Your task to perform on an android device: open app "TextNow: Call + Text Unlimited" (install if not already installed) and go to login screen Image 0: 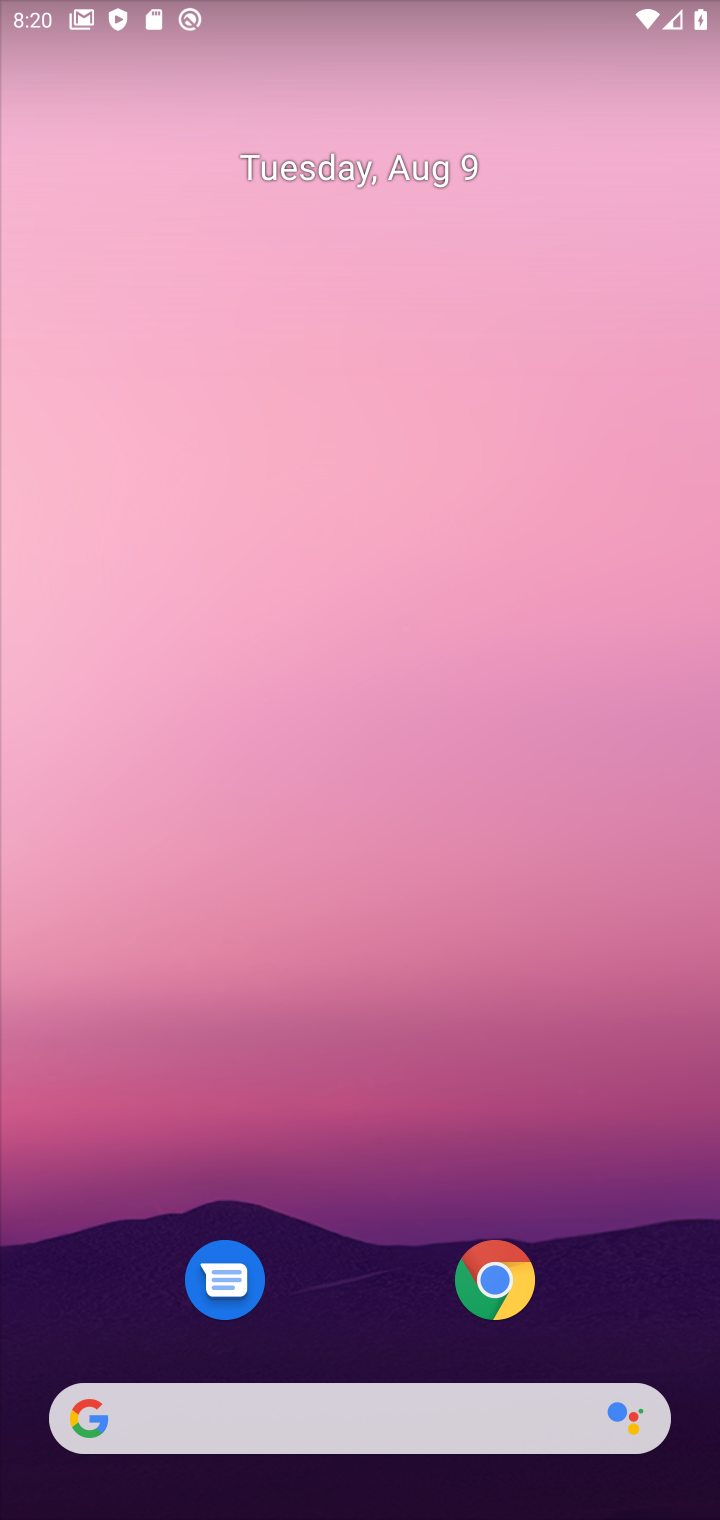
Step 0: drag from (381, 805) to (413, 428)
Your task to perform on an android device: open app "TextNow: Call + Text Unlimited" (install if not already installed) and go to login screen Image 1: 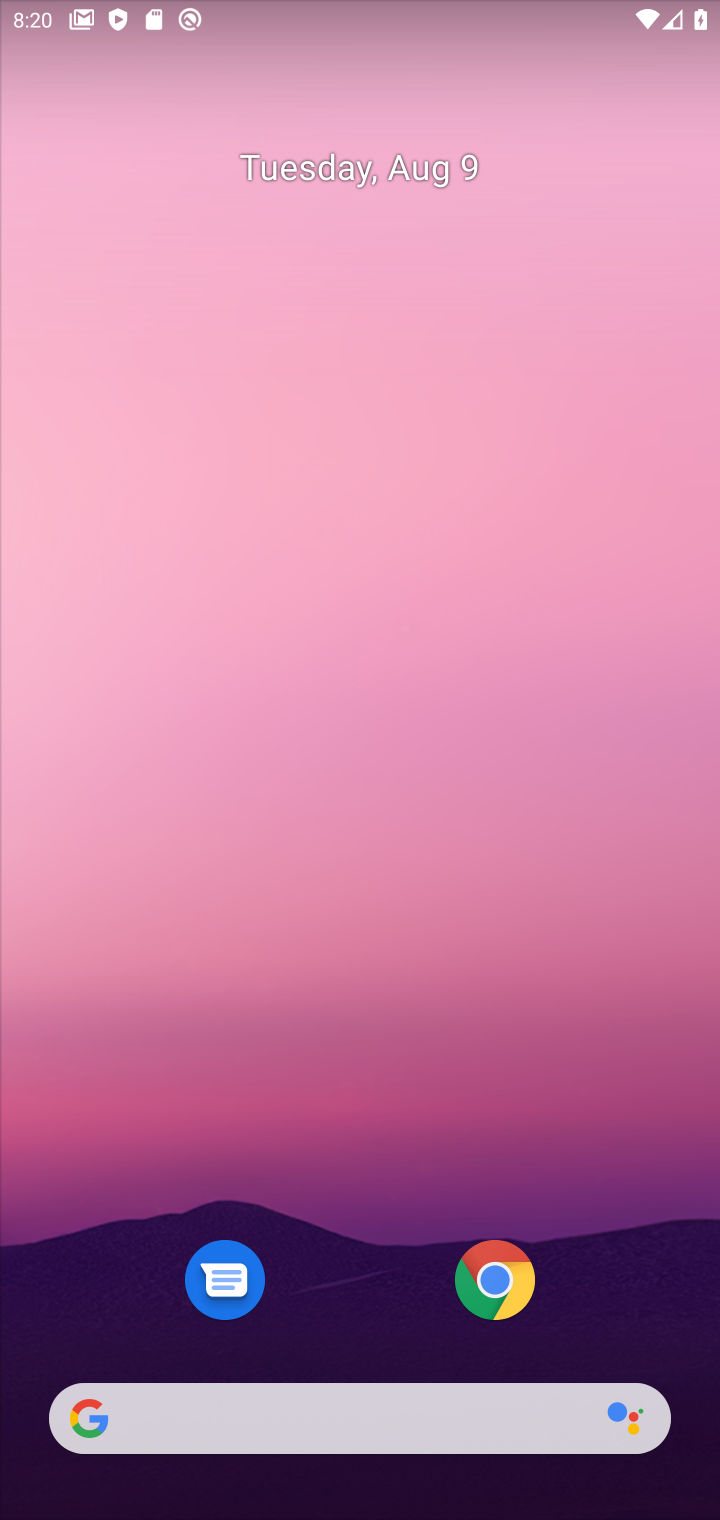
Step 1: drag from (409, 1224) to (578, 244)
Your task to perform on an android device: open app "TextNow: Call + Text Unlimited" (install if not already installed) and go to login screen Image 2: 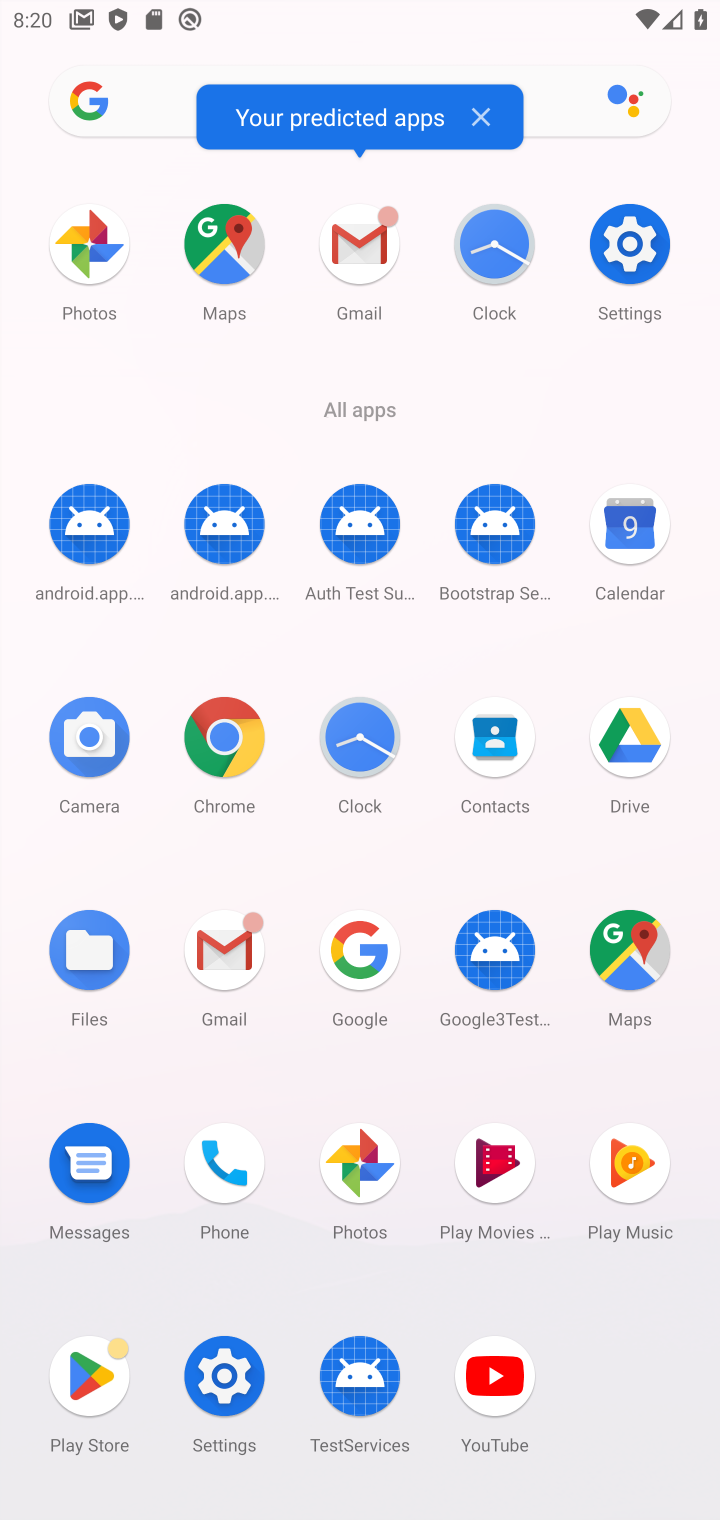
Step 2: click (82, 1383)
Your task to perform on an android device: open app "TextNow: Call + Text Unlimited" (install if not already installed) and go to login screen Image 3: 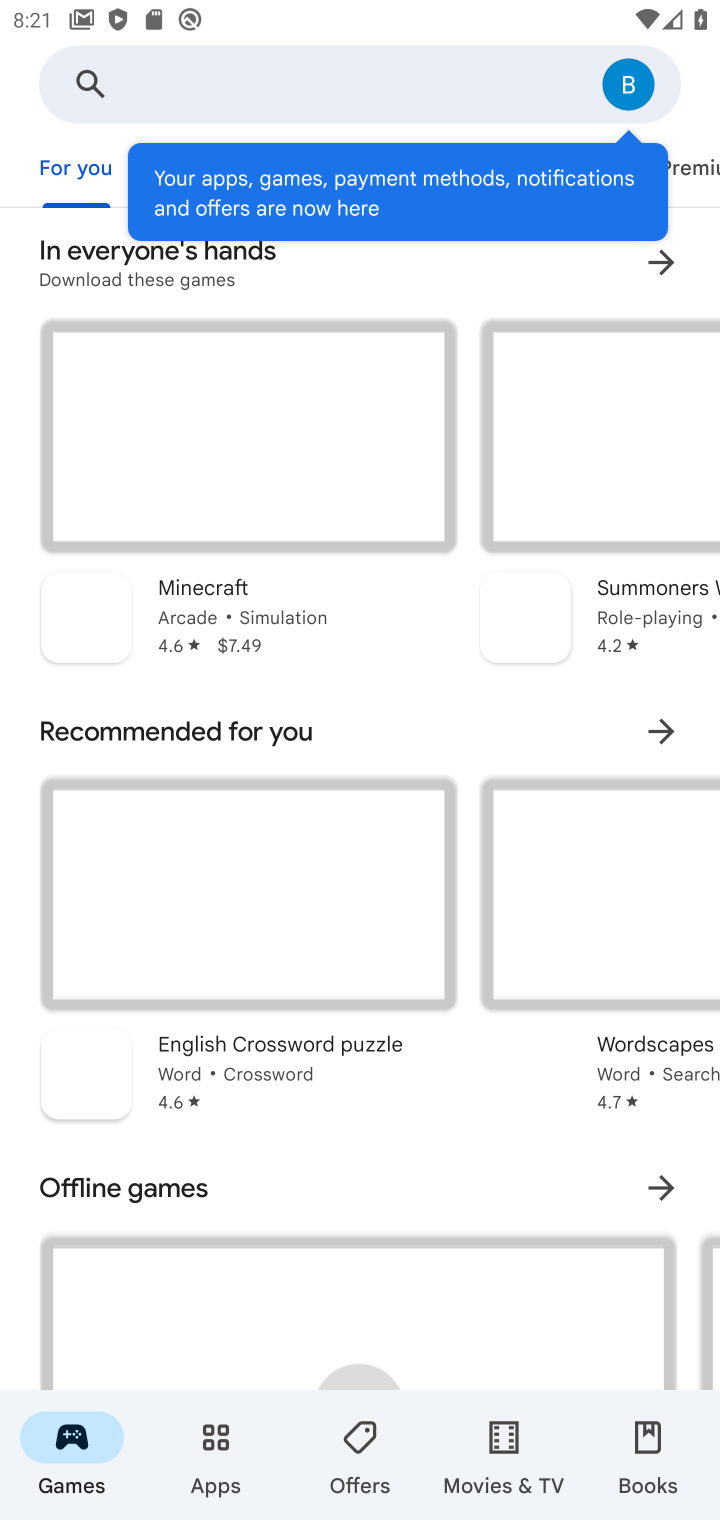
Step 3: click (286, 83)
Your task to perform on an android device: open app "TextNow: Call + Text Unlimited" (install if not already installed) and go to login screen Image 4: 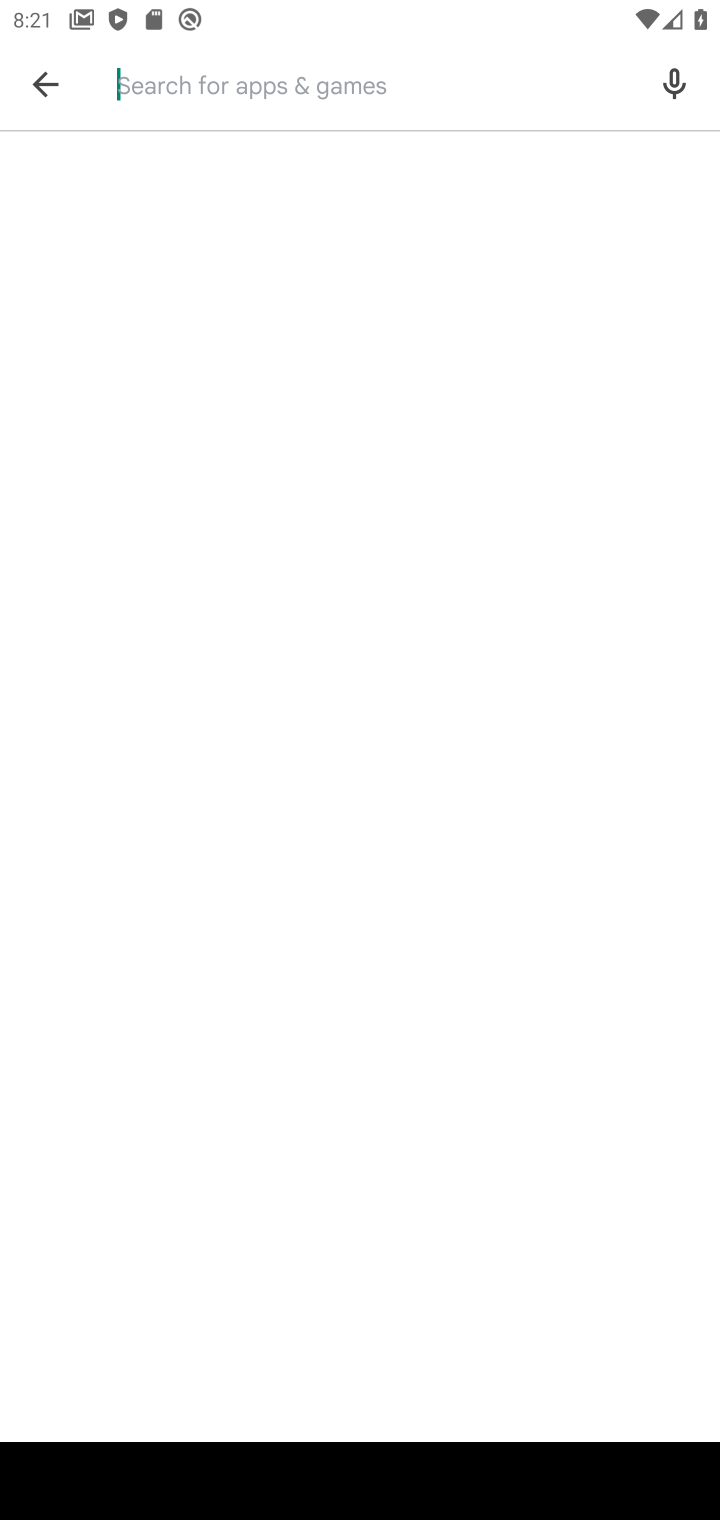
Step 4: type "TextNow: Call + Text Unlimited"
Your task to perform on an android device: open app "TextNow: Call + Text Unlimited" (install if not already installed) and go to login screen Image 5: 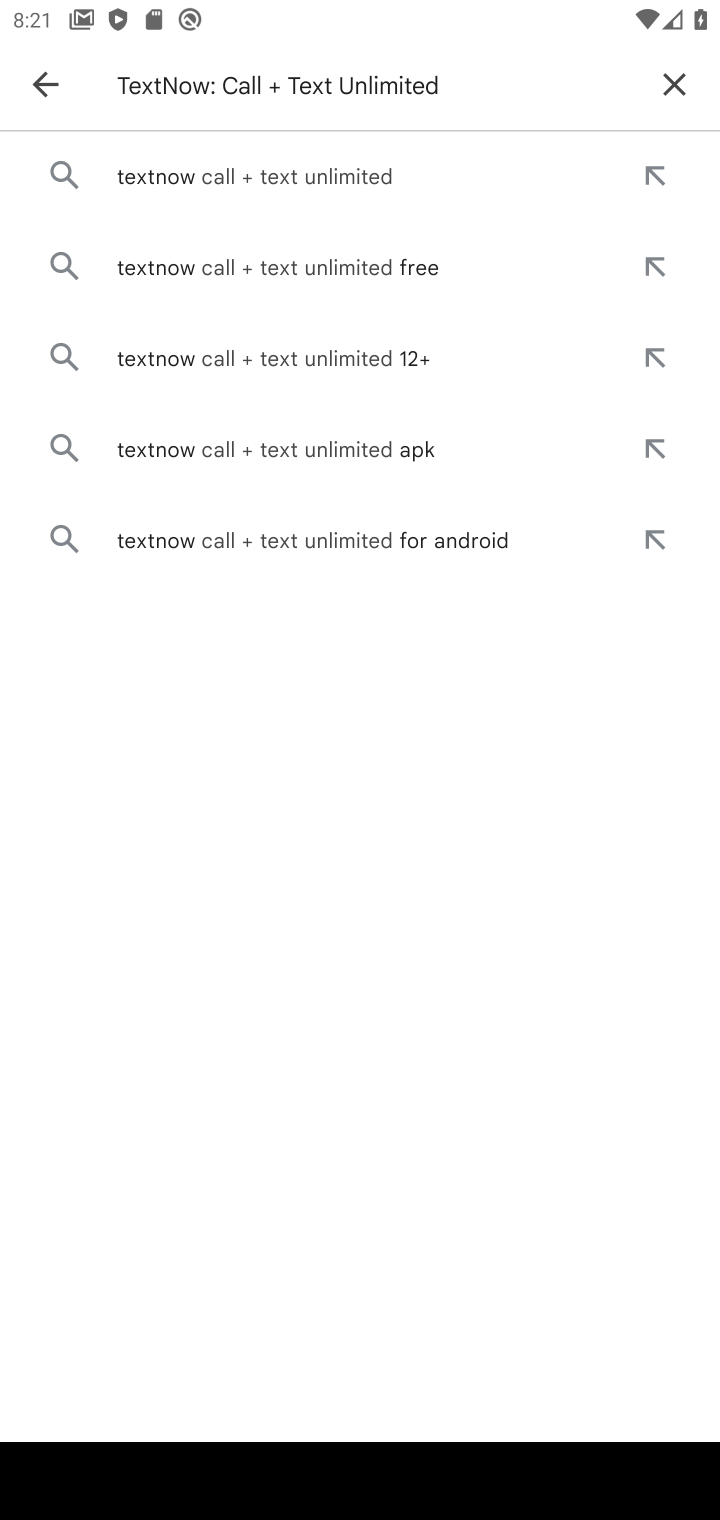
Step 5: click (334, 176)
Your task to perform on an android device: open app "TextNow: Call + Text Unlimited" (install if not already installed) and go to login screen Image 6: 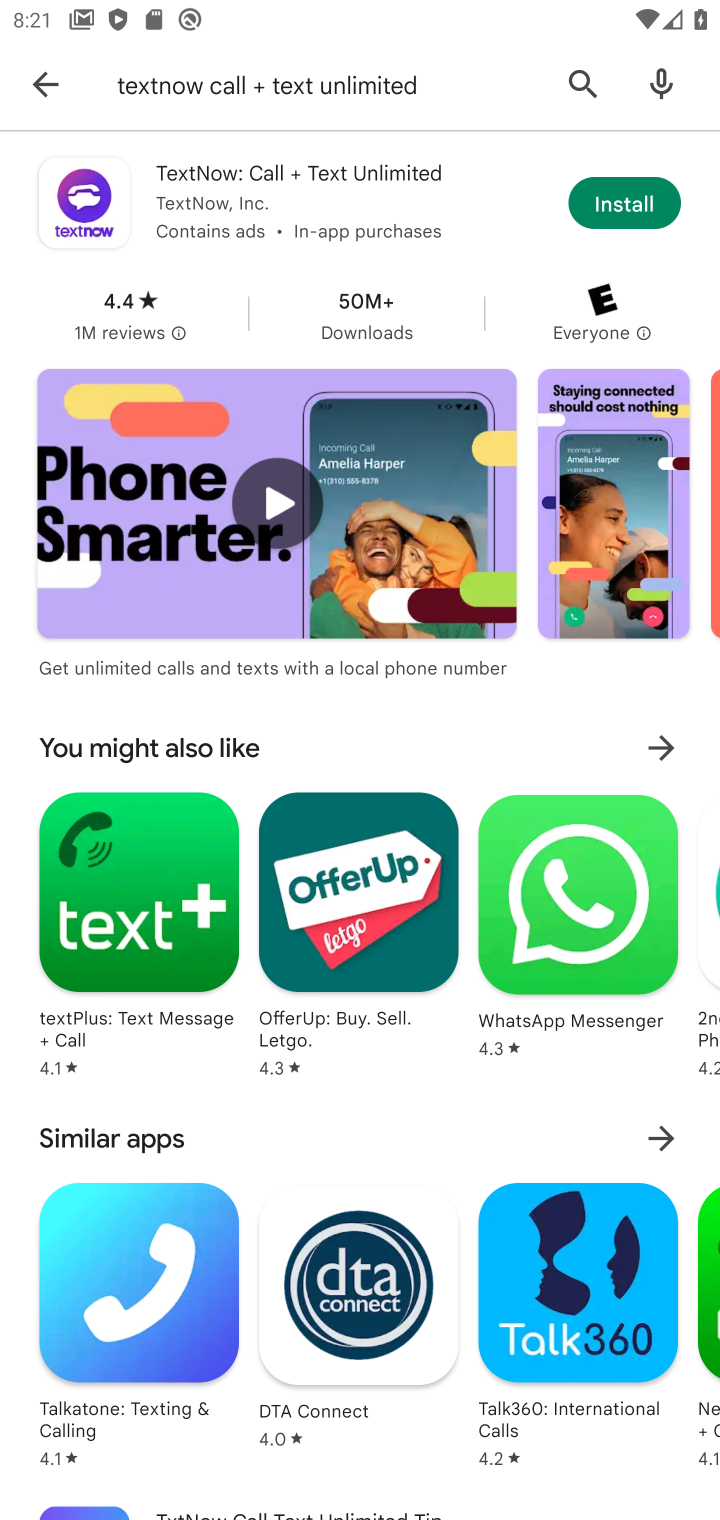
Step 6: click (659, 206)
Your task to perform on an android device: open app "TextNow: Call + Text Unlimited" (install if not already installed) and go to login screen Image 7: 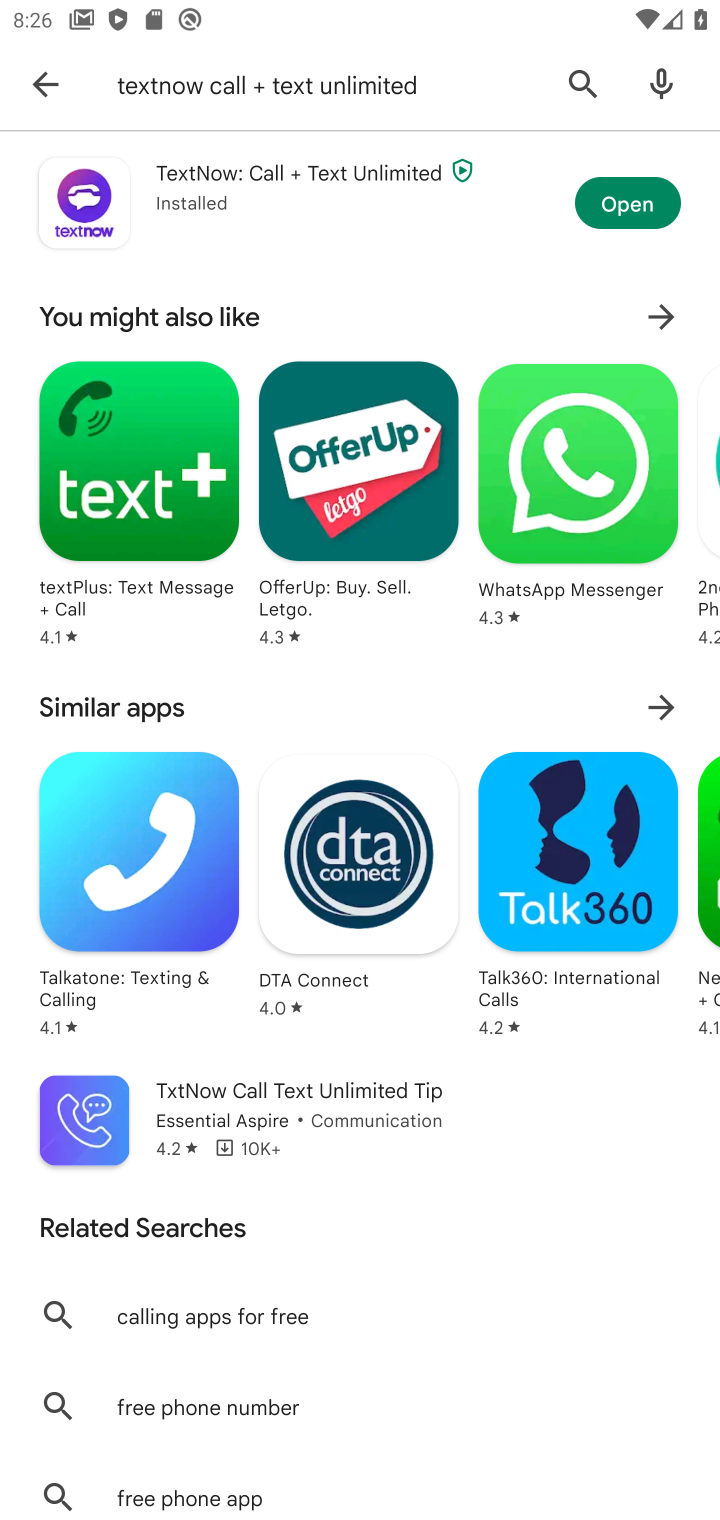
Step 7: click (606, 209)
Your task to perform on an android device: open app "TextNow: Call + Text Unlimited" (install if not already installed) and go to login screen Image 8: 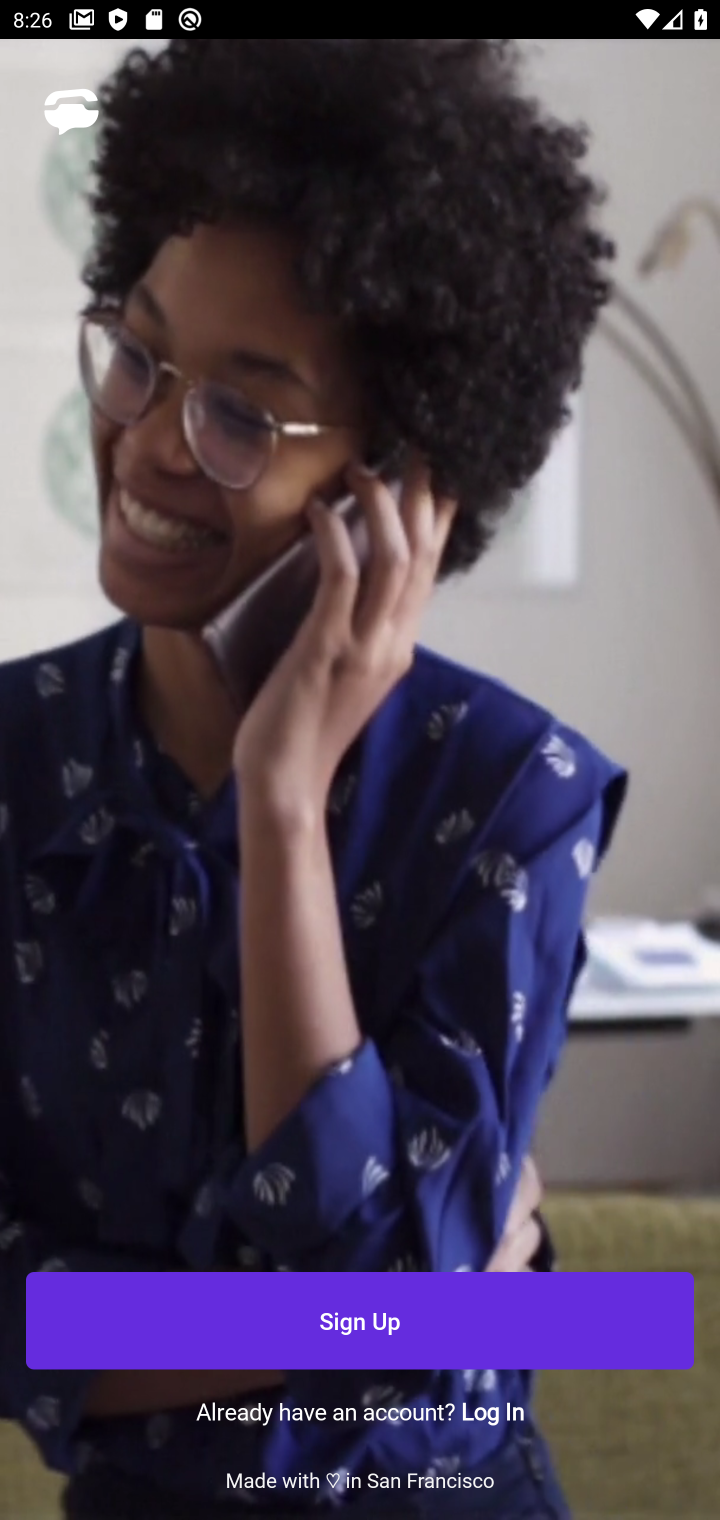
Step 8: click (495, 1410)
Your task to perform on an android device: open app "TextNow: Call + Text Unlimited" (install if not already installed) and go to login screen Image 9: 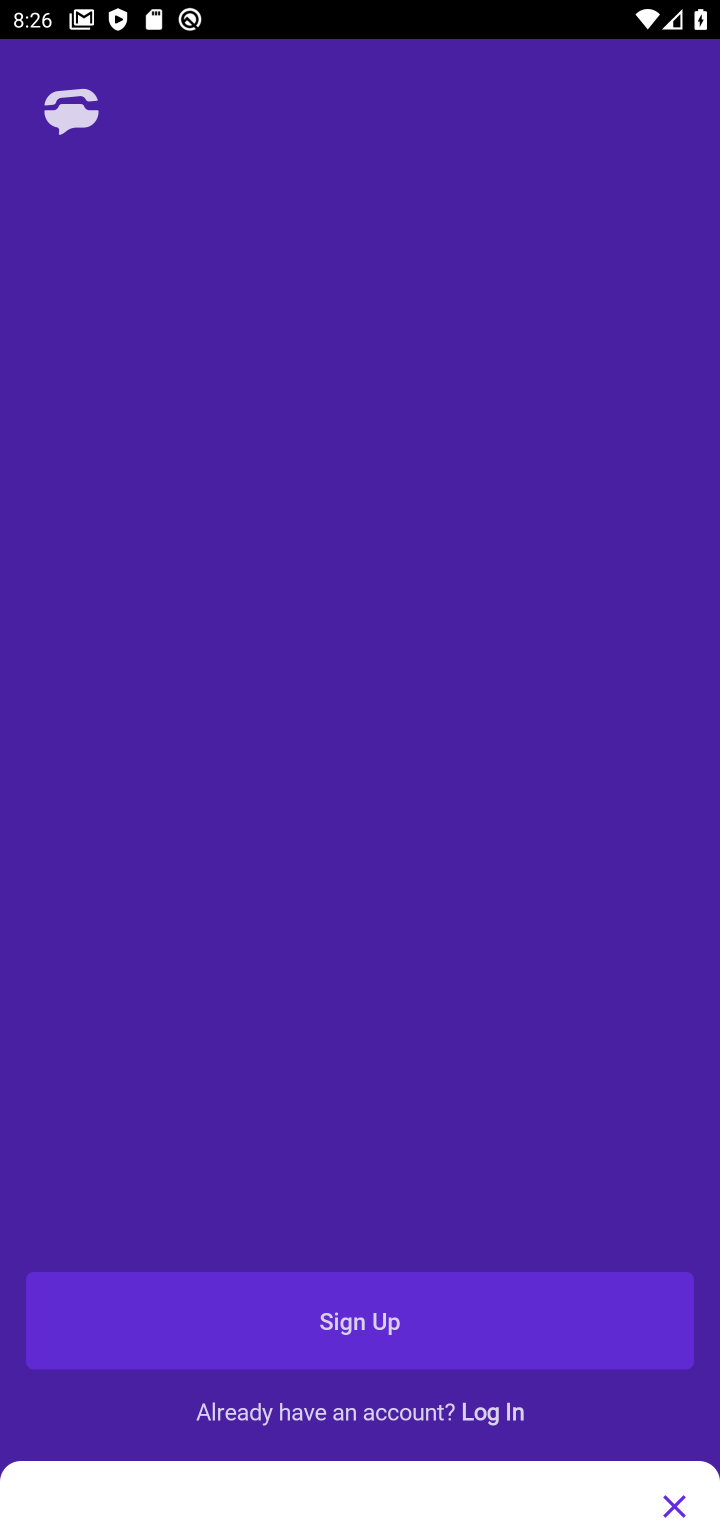
Step 9: click (504, 1417)
Your task to perform on an android device: open app "TextNow: Call + Text Unlimited" (install if not already installed) and go to login screen Image 10: 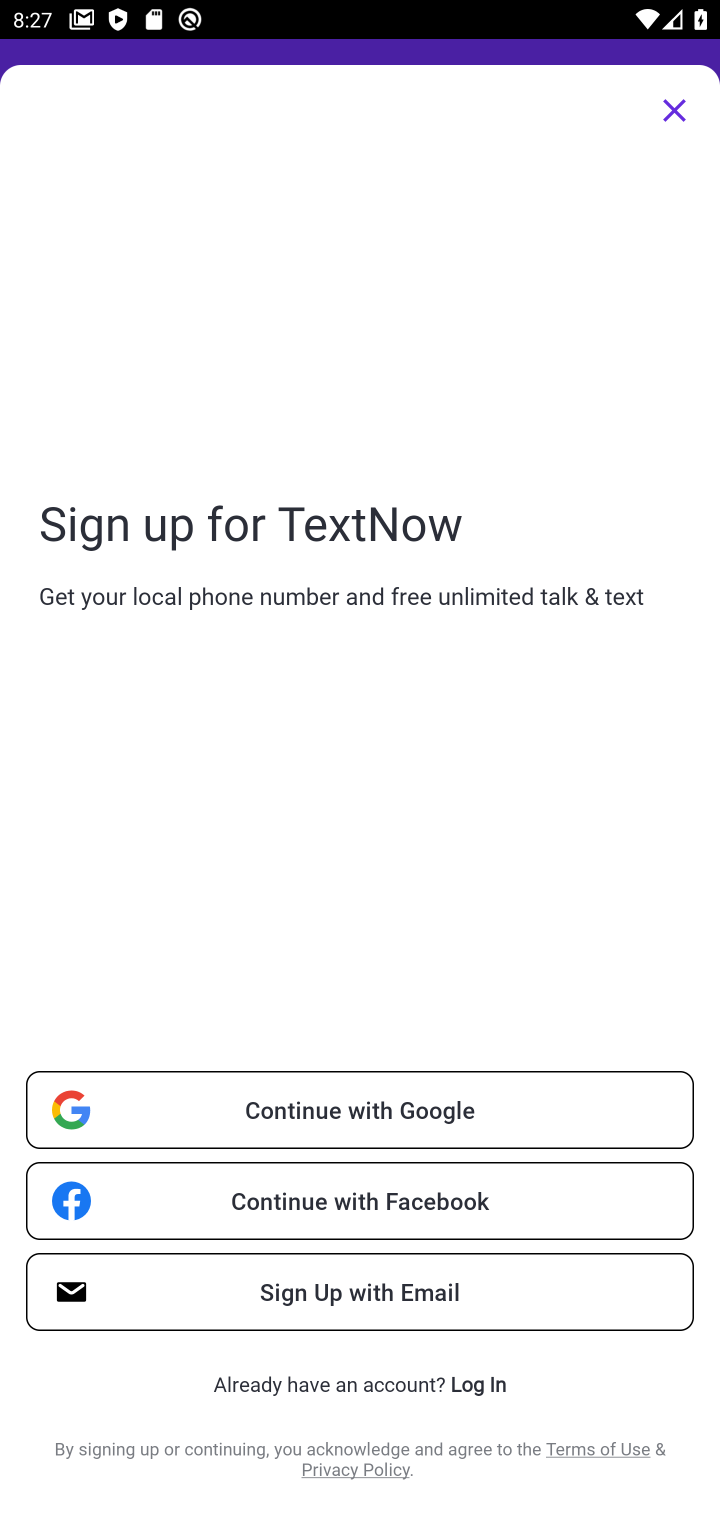
Step 10: task complete